Your task to perform on an android device: Go to Yahoo.com Image 0: 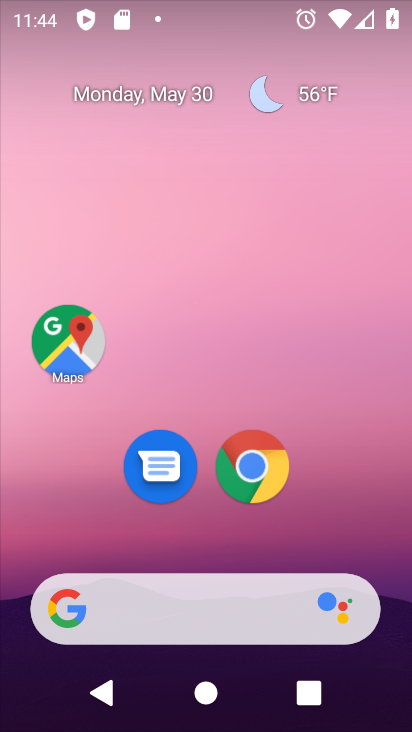
Step 0: click (257, 481)
Your task to perform on an android device: Go to Yahoo.com Image 1: 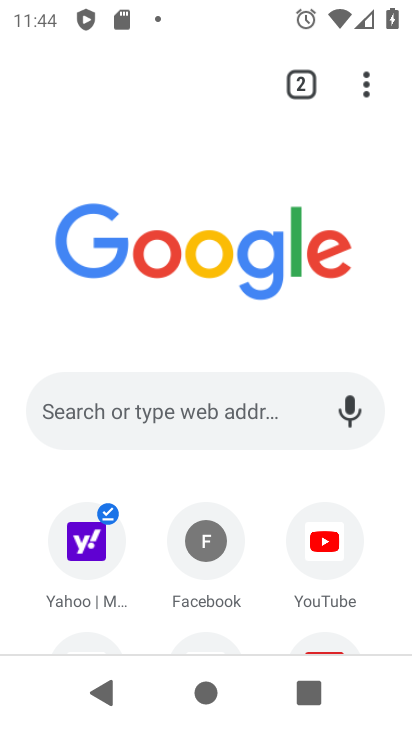
Step 1: click (88, 551)
Your task to perform on an android device: Go to Yahoo.com Image 2: 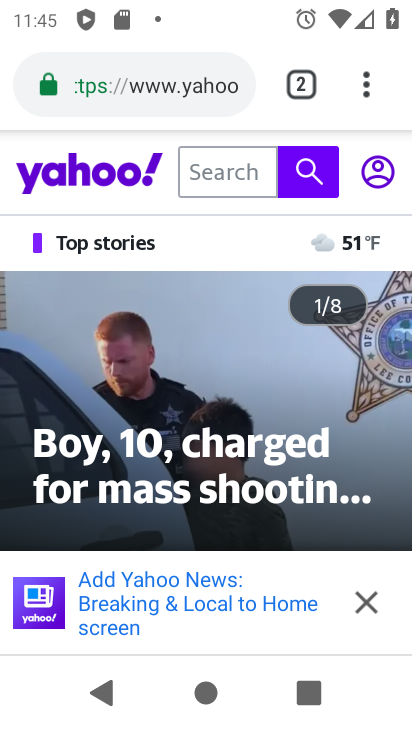
Step 2: task complete